Your task to perform on an android device: check google app version Image 0: 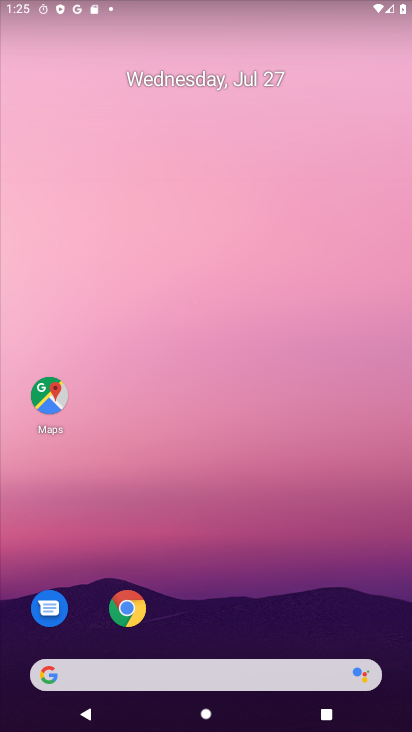
Step 0: drag from (171, 238) to (188, 59)
Your task to perform on an android device: check google app version Image 1: 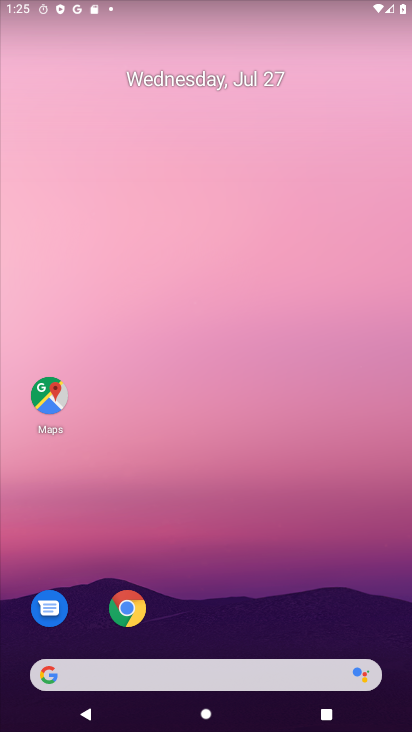
Step 1: click (54, 678)
Your task to perform on an android device: check google app version Image 2: 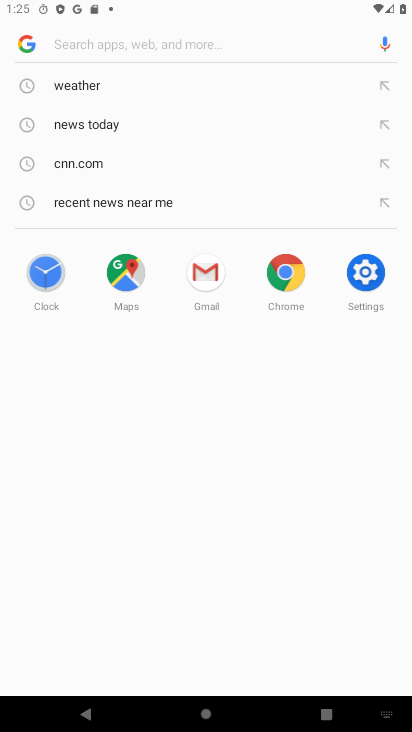
Step 2: click (21, 44)
Your task to perform on an android device: check google app version Image 3: 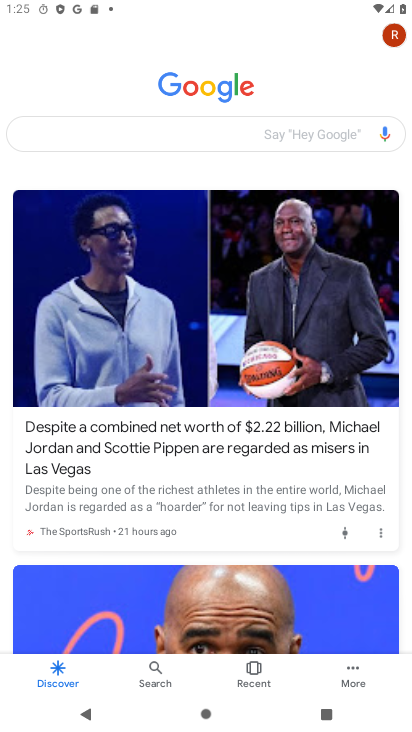
Step 3: click (385, 31)
Your task to perform on an android device: check google app version Image 4: 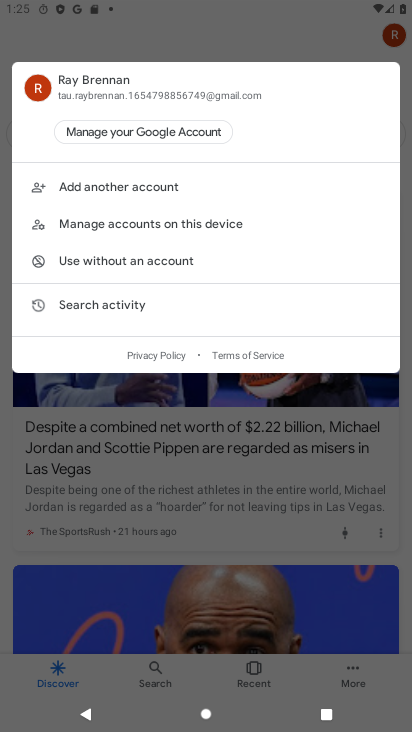
Step 4: click (349, 666)
Your task to perform on an android device: check google app version Image 5: 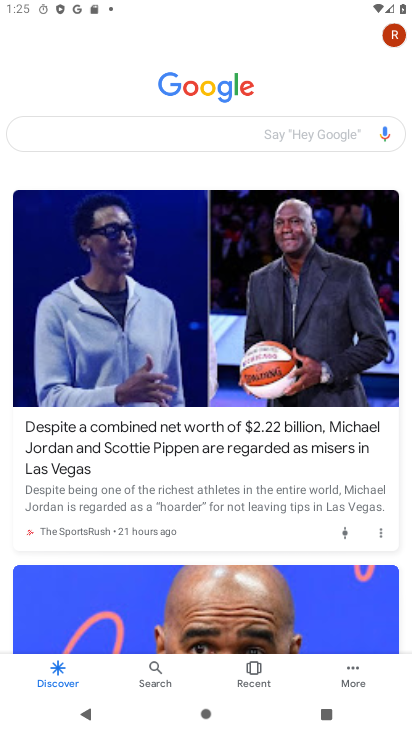
Step 5: click (349, 666)
Your task to perform on an android device: check google app version Image 6: 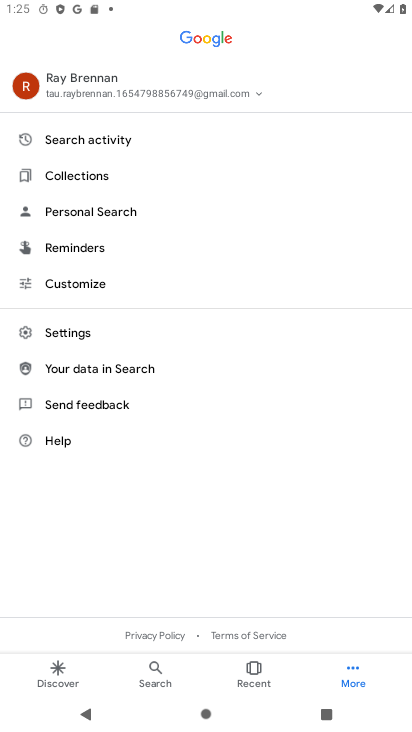
Step 6: click (70, 325)
Your task to perform on an android device: check google app version Image 7: 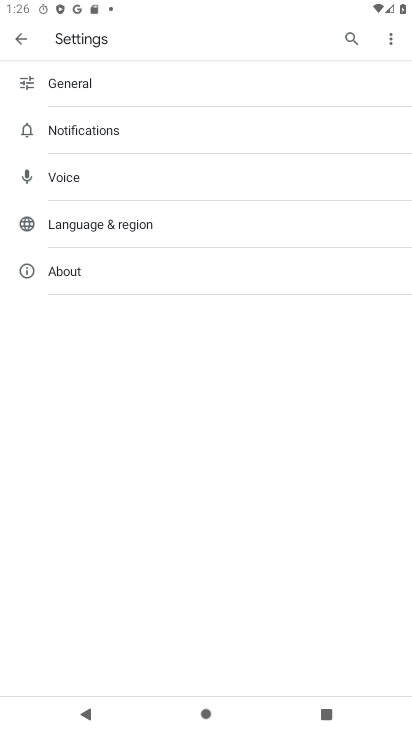
Step 7: click (72, 254)
Your task to perform on an android device: check google app version Image 8: 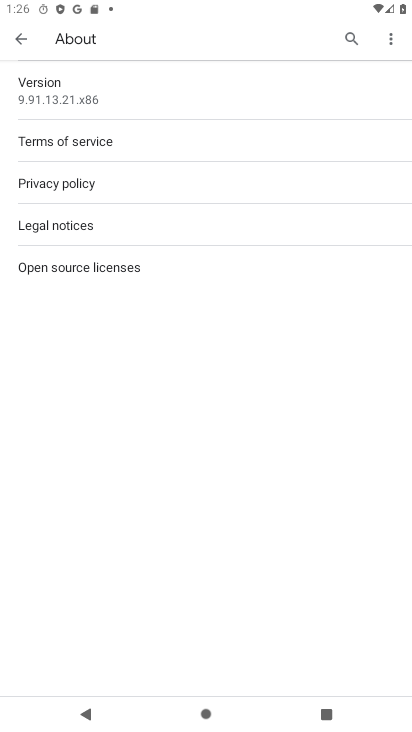
Step 8: task complete